Your task to perform on an android device: Open display settings Image 0: 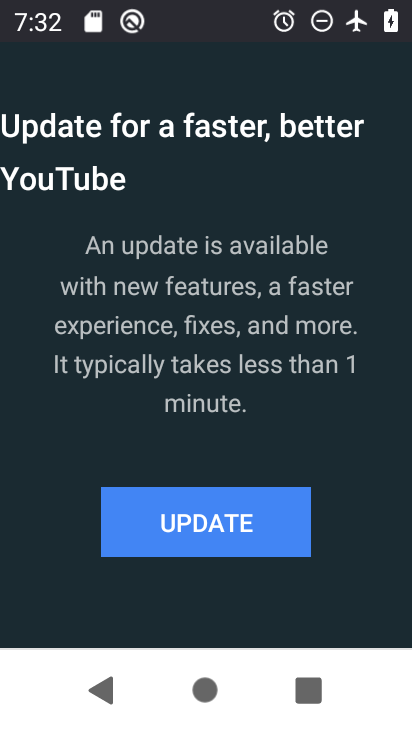
Step 0: press home button
Your task to perform on an android device: Open display settings Image 1: 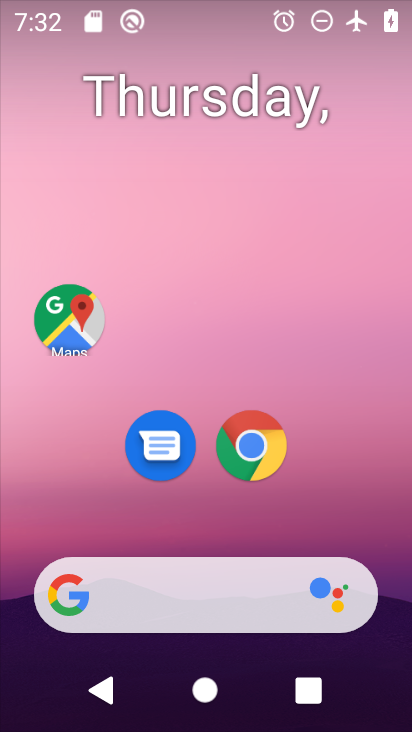
Step 1: drag from (337, 480) to (220, 51)
Your task to perform on an android device: Open display settings Image 2: 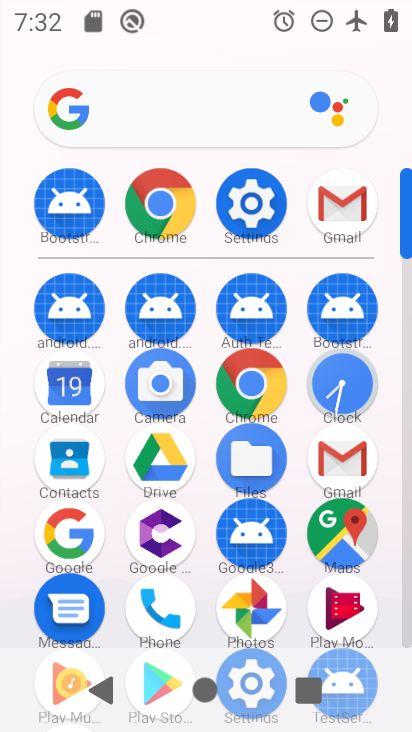
Step 2: click (256, 204)
Your task to perform on an android device: Open display settings Image 3: 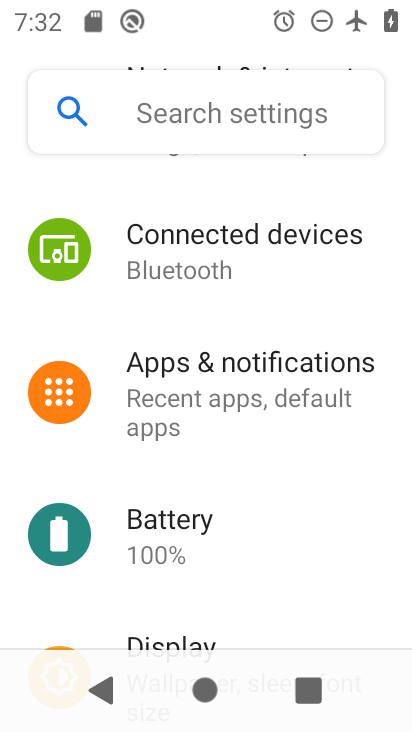
Step 3: drag from (278, 458) to (202, 220)
Your task to perform on an android device: Open display settings Image 4: 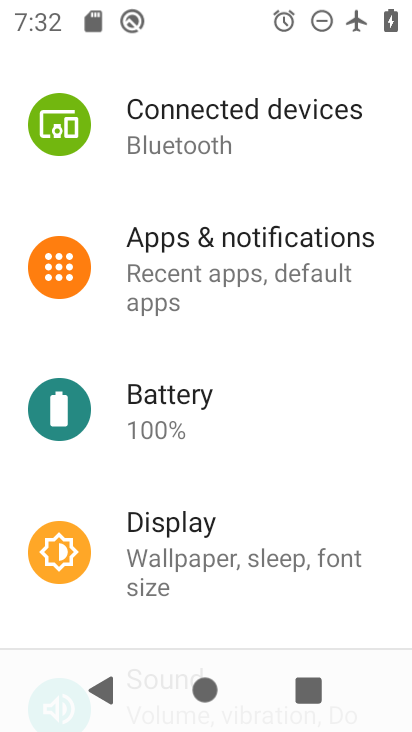
Step 4: click (179, 524)
Your task to perform on an android device: Open display settings Image 5: 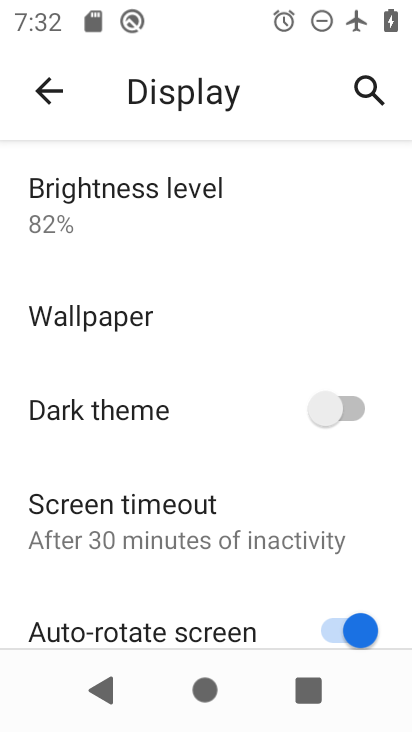
Step 5: task complete